Your task to perform on an android device: open chrome and create a bookmark for the current page Image 0: 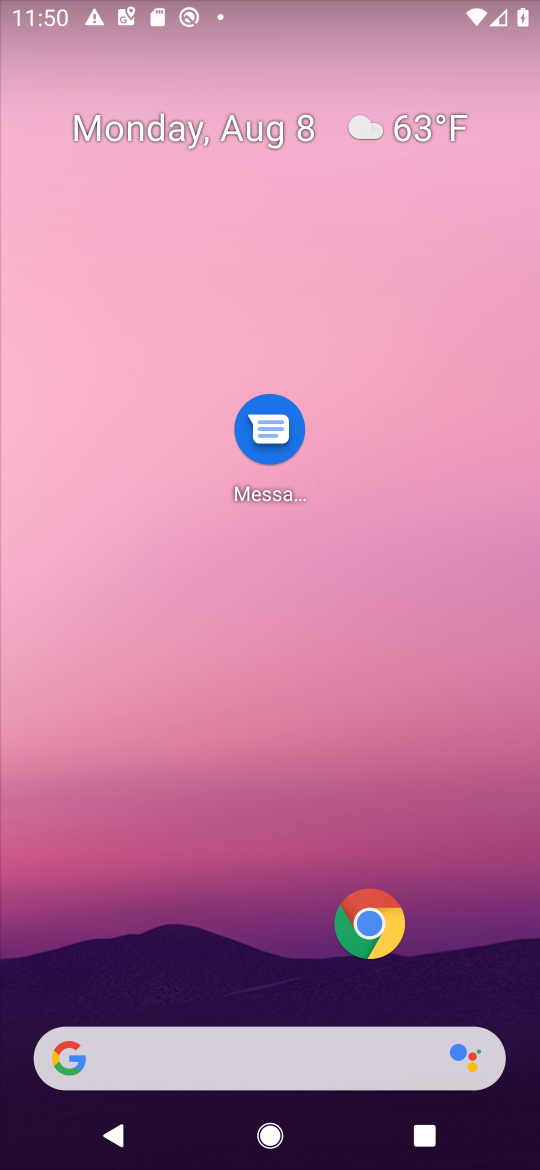
Step 0: click (379, 924)
Your task to perform on an android device: open chrome and create a bookmark for the current page Image 1: 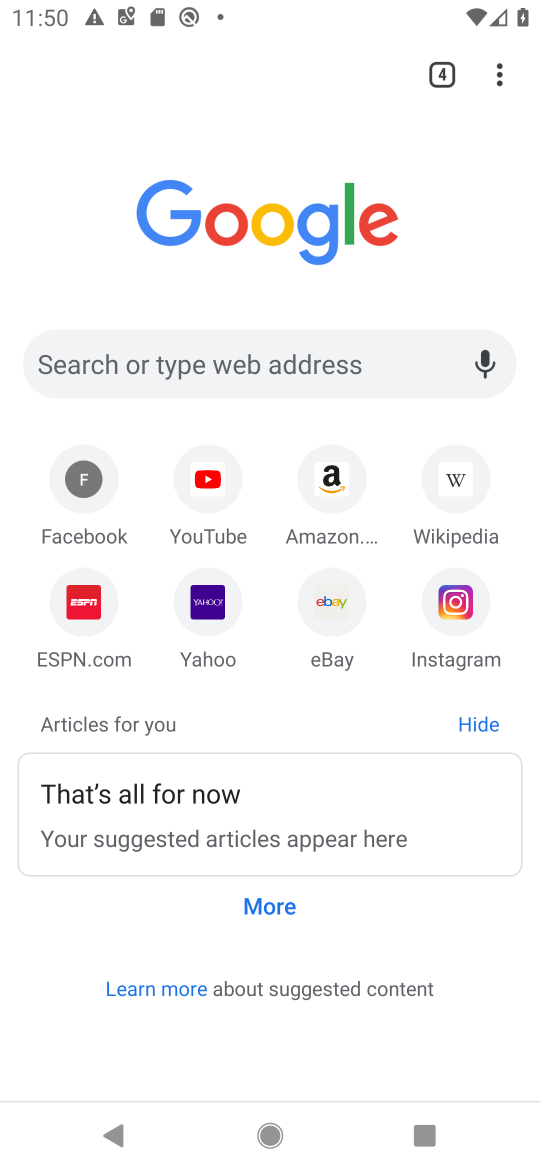
Step 1: click (501, 71)
Your task to perform on an android device: open chrome and create a bookmark for the current page Image 2: 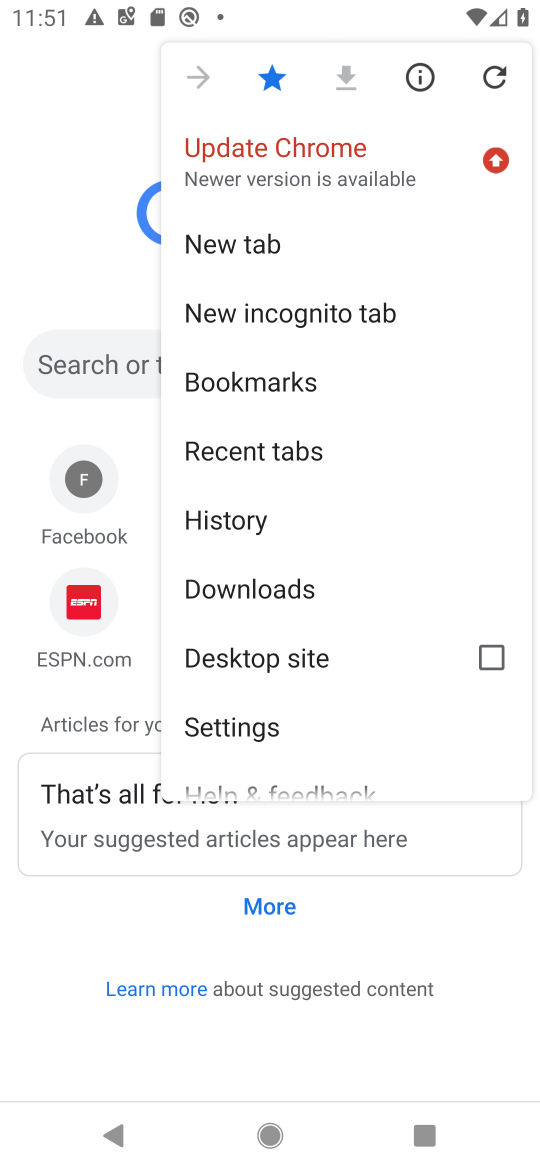
Step 2: task complete